Your task to perform on an android device: Search for Italian restaurants on Maps Image 0: 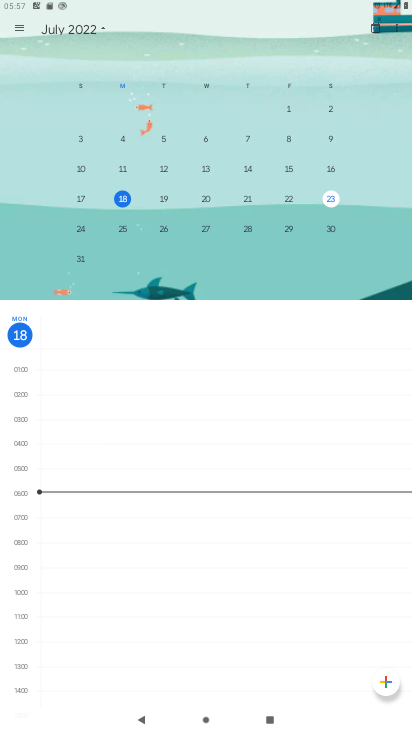
Step 0: press home button
Your task to perform on an android device: Search for Italian restaurants on Maps Image 1: 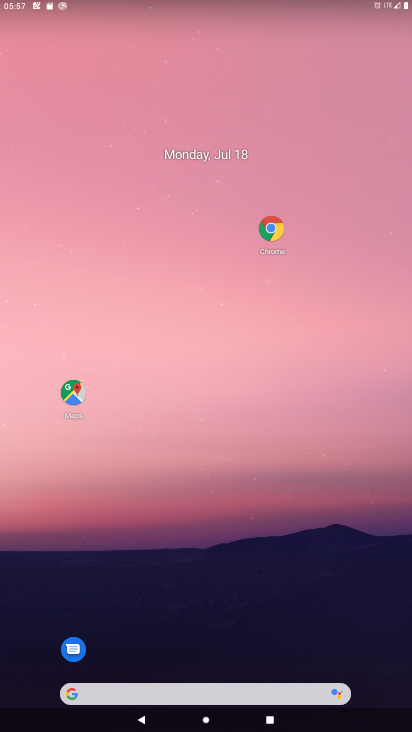
Step 1: click (92, 399)
Your task to perform on an android device: Search for Italian restaurants on Maps Image 2: 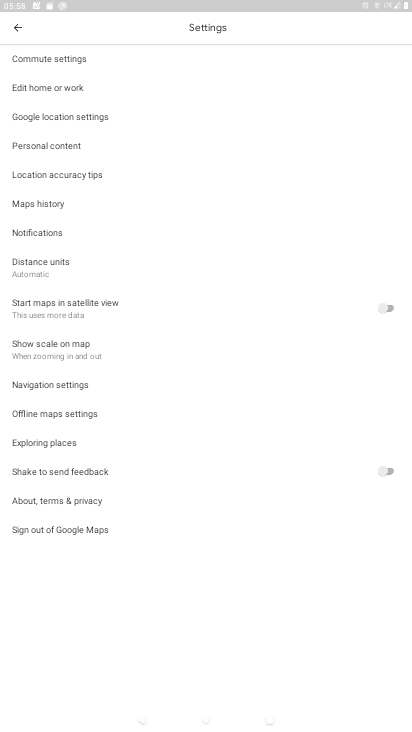
Step 2: click (21, 38)
Your task to perform on an android device: Search for Italian restaurants on Maps Image 3: 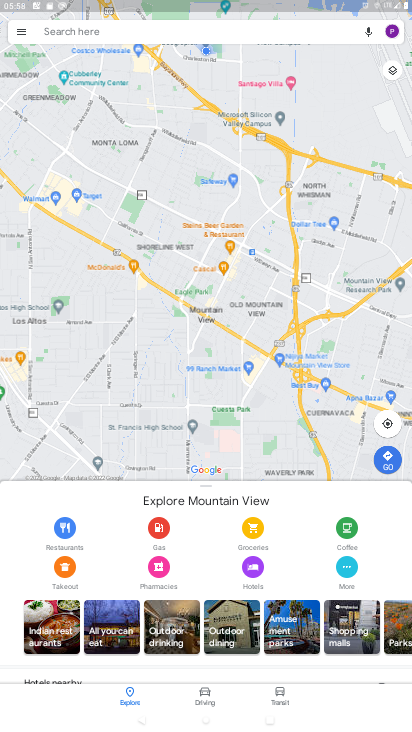
Step 3: click (77, 38)
Your task to perform on an android device: Search for Italian restaurants on Maps Image 4: 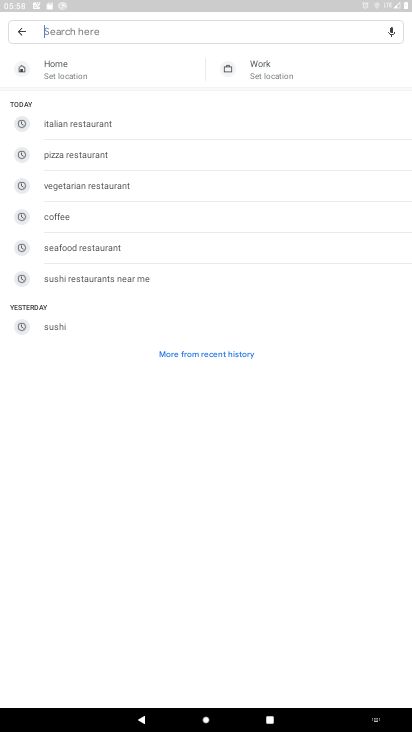
Step 4: click (96, 124)
Your task to perform on an android device: Search for Italian restaurants on Maps Image 5: 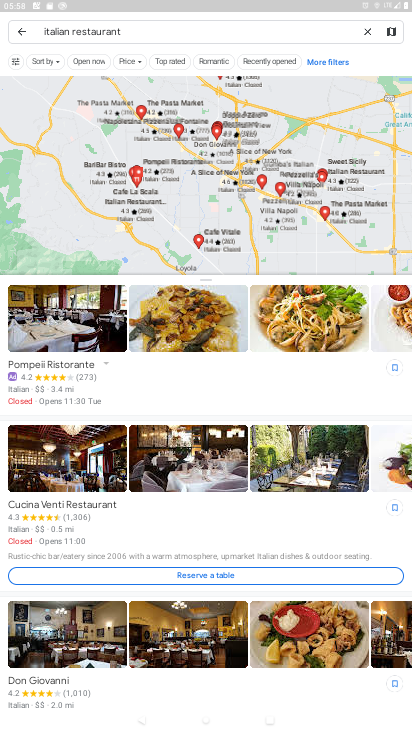
Step 5: task complete